Your task to perform on an android device: turn off location Image 0: 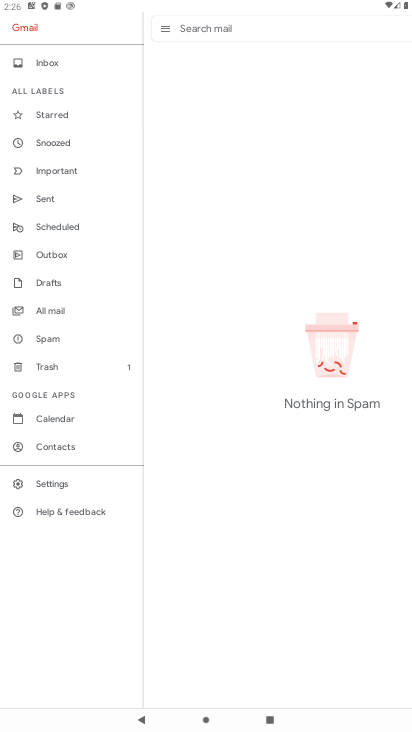
Step 0: press home button
Your task to perform on an android device: turn off location Image 1: 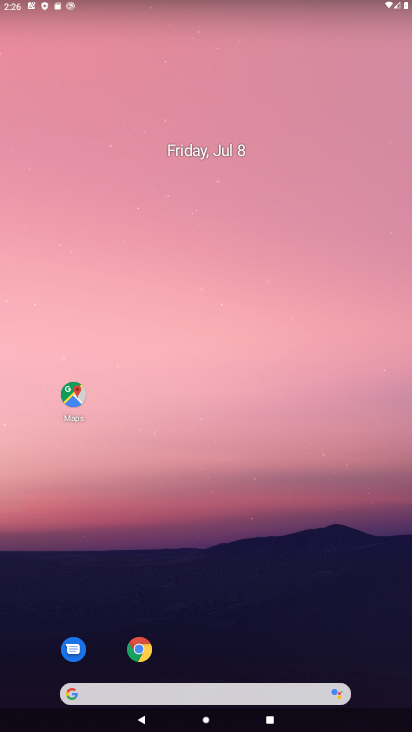
Step 1: drag from (371, 647) to (288, 172)
Your task to perform on an android device: turn off location Image 2: 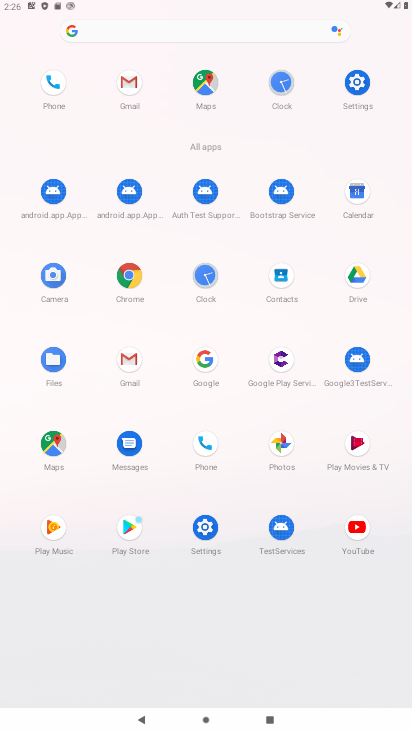
Step 2: click (206, 529)
Your task to perform on an android device: turn off location Image 3: 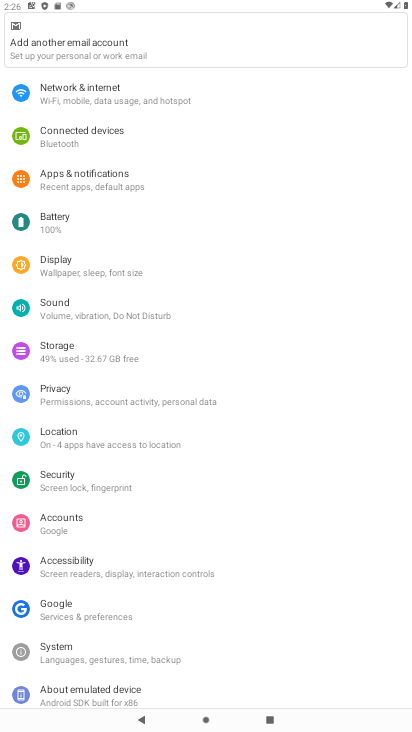
Step 3: click (64, 435)
Your task to perform on an android device: turn off location Image 4: 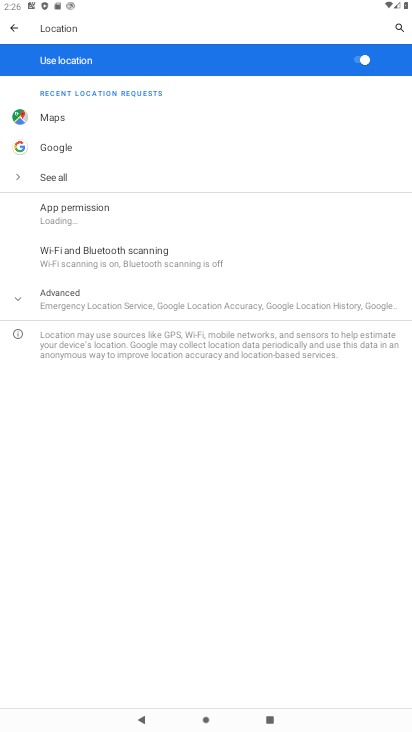
Step 4: click (358, 58)
Your task to perform on an android device: turn off location Image 5: 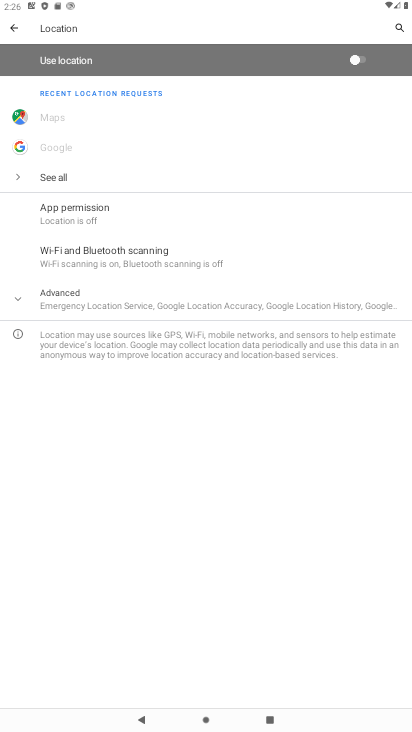
Step 5: task complete